Your task to perform on an android device: show emergency info Image 0: 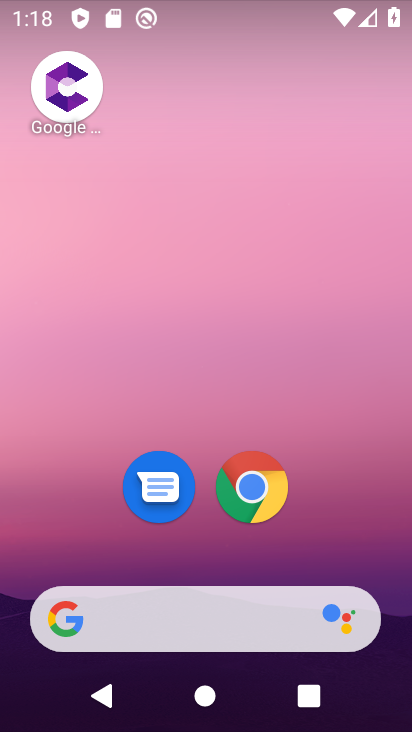
Step 0: drag from (283, 557) to (157, 19)
Your task to perform on an android device: show emergency info Image 1: 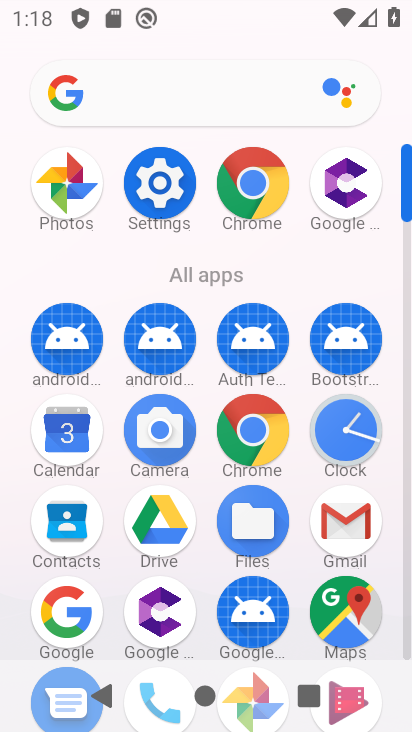
Step 1: click (165, 194)
Your task to perform on an android device: show emergency info Image 2: 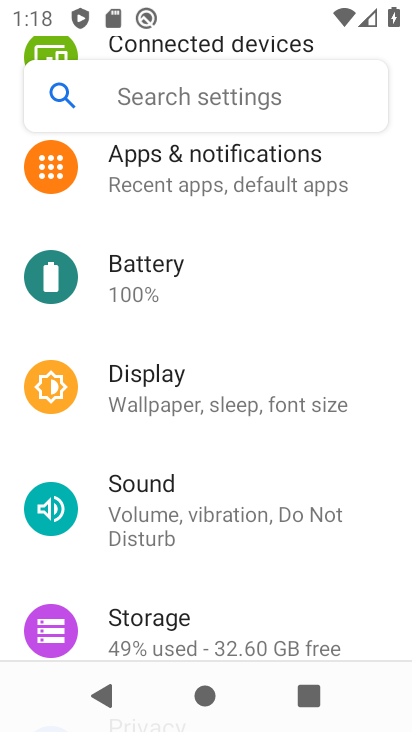
Step 2: drag from (242, 549) to (195, 15)
Your task to perform on an android device: show emergency info Image 3: 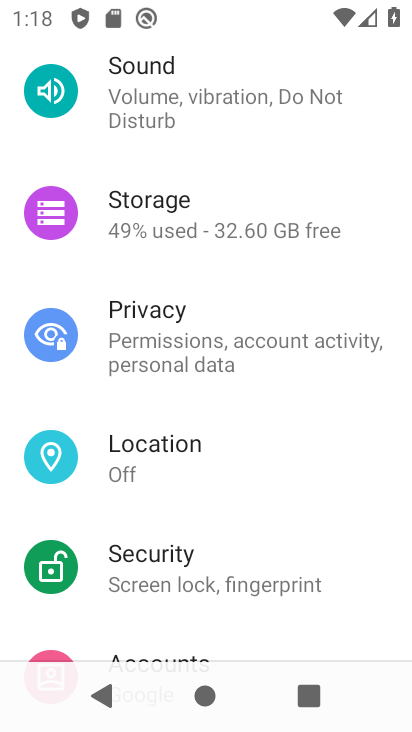
Step 3: drag from (215, 609) to (241, 123)
Your task to perform on an android device: show emergency info Image 4: 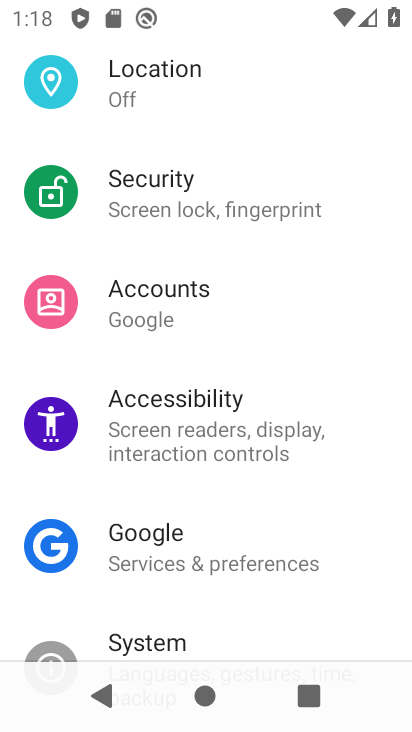
Step 4: drag from (173, 633) to (186, 134)
Your task to perform on an android device: show emergency info Image 5: 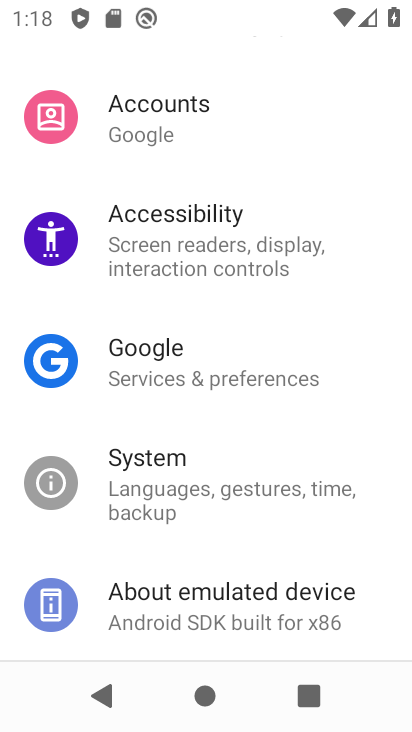
Step 5: click (235, 582)
Your task to perform on an android device: show emergency info Image 6: 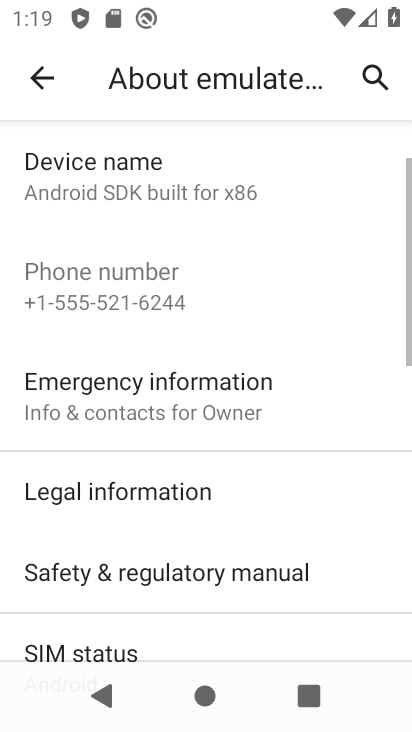
Step 6: click (192, 385)
Your task to perform on an android device: show emergency info Image 7: 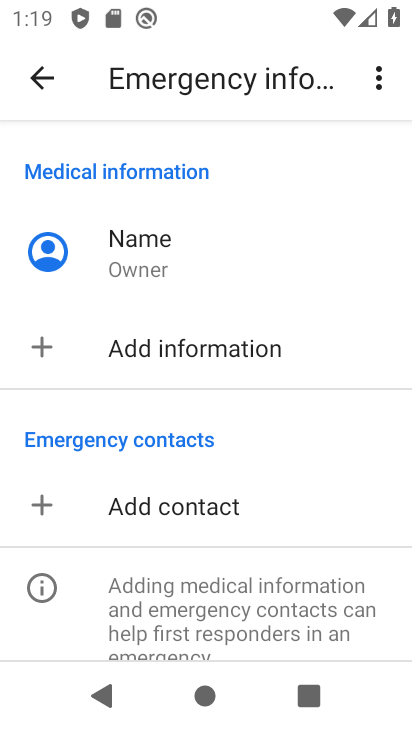
Step 7: task complete